Your task to perform on an android device: toggle location history Image 0: 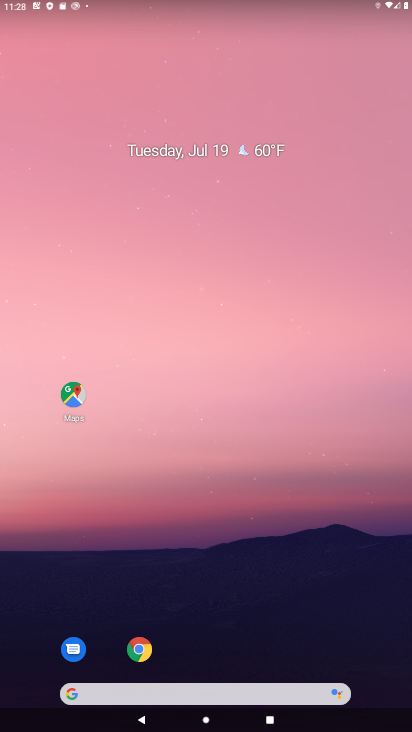
Step 0: drag from (202, 690) to (158, 246)
Your task to perform on an android device: toggle location history Image 1: 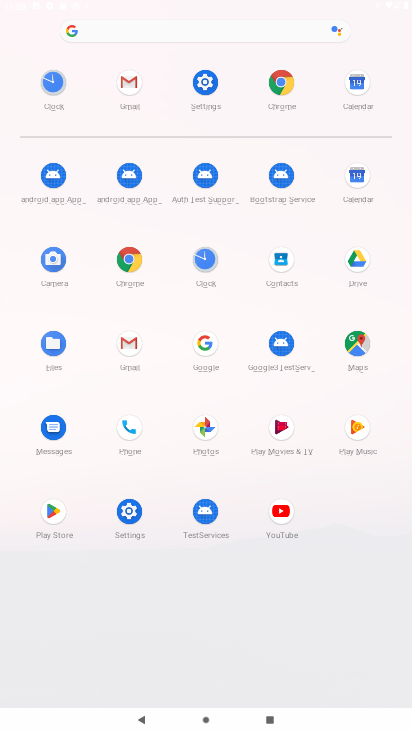
Step 1: click (122, 521)
Your task to perform on an android device: toggle location history Image 2: 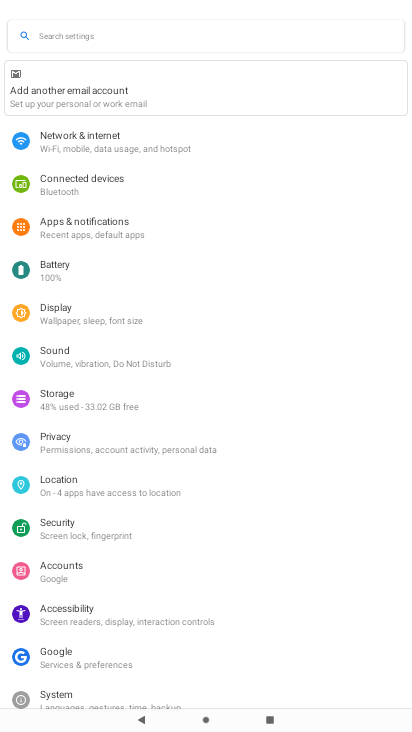
Step 2: click (101, 498)
Your task to perform on an android device: toggle location history Image 3: 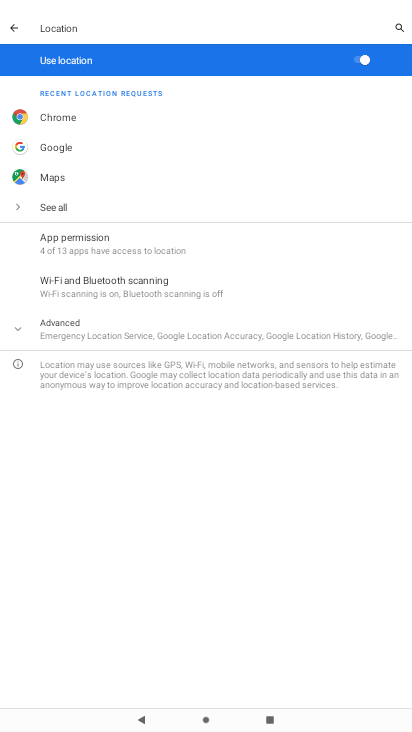
Step 3: click (139, 325)
Your task to perform on an android device: toggle location history Image 4: 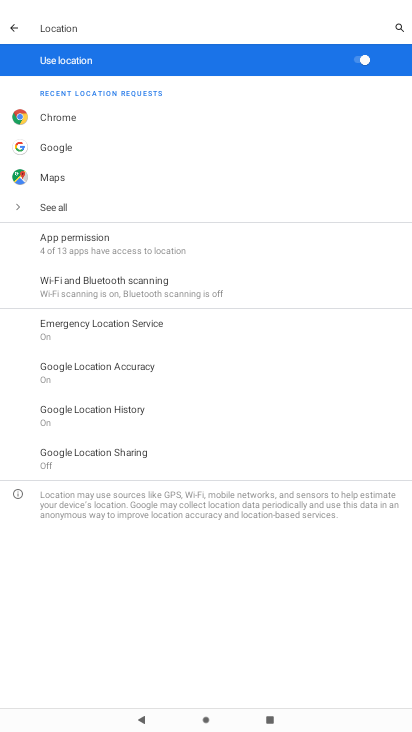
Step 4: click (116, 418)
Your task to perform on an android device: toggle location history Image 5: 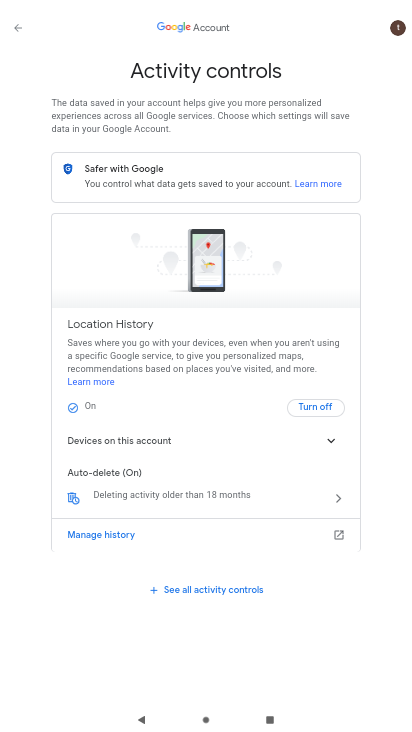
Step 5: click (310, 410)
Your task to perform on an android device: toggle location history Image 6: 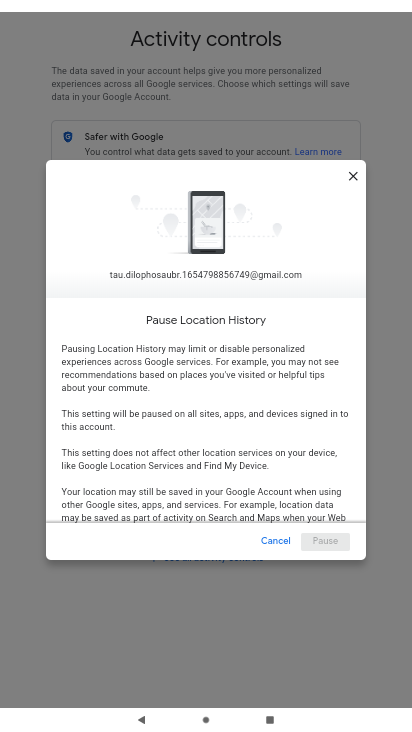
Step 6: drag from (242, 493) to (158, 69)
Your task to perform on an android device: toggle location history Image 7: 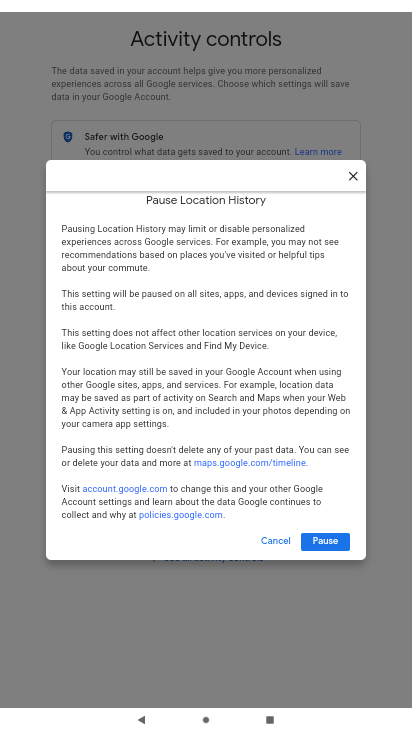
Step 7: click (320, 546)
Your task to perform on an android device: toggle location history Image 8: 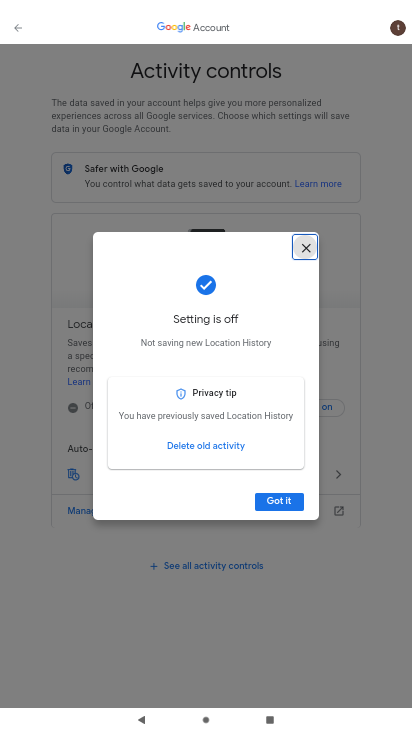
Step 8: click (265, 498)
Your task to perform on an android device: toggle location history Image 9: 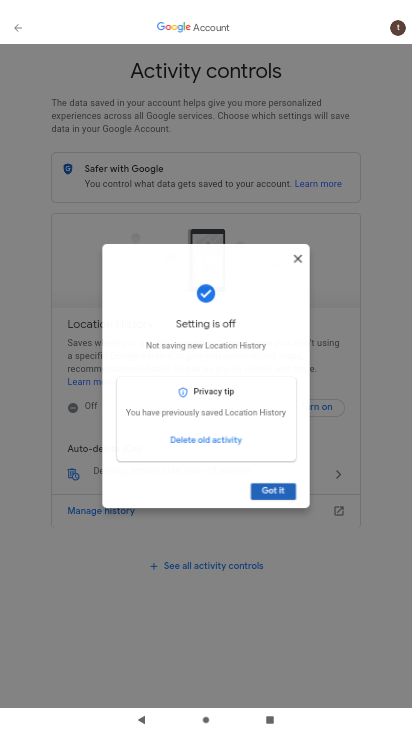
Step 9: task complete